Your task to perform on an android device: Open the map Image 0: 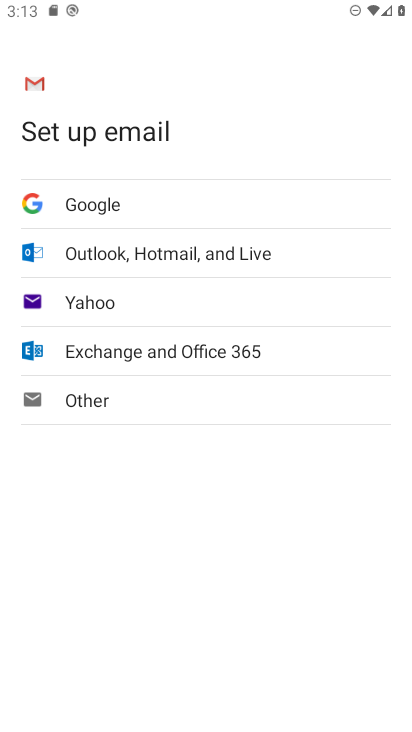
Step 0: press back button
Your task to perform on an android device: Open the map Image 1: 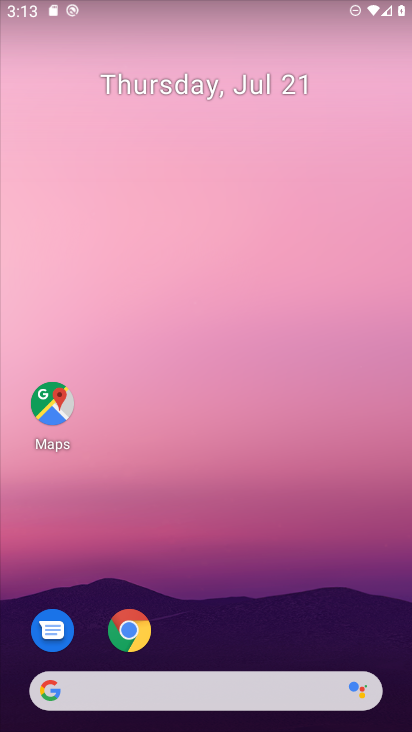
Step 1: click (36, 404)
Your task to perform on an android device: Open the map Image 2: 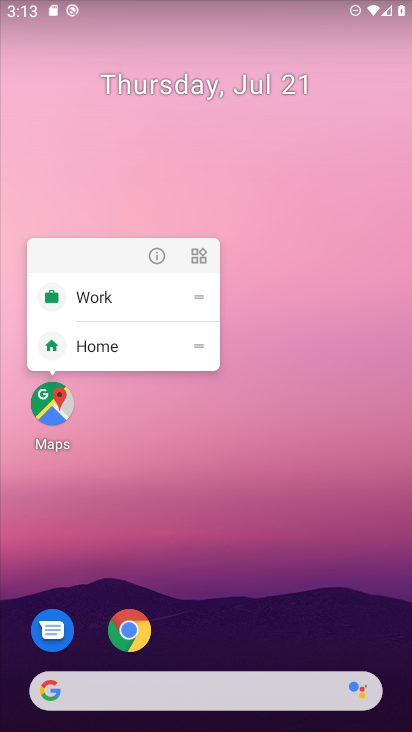
Step 2: click (62, 400)
Your task to perform on an android device: Open the map Image 3: 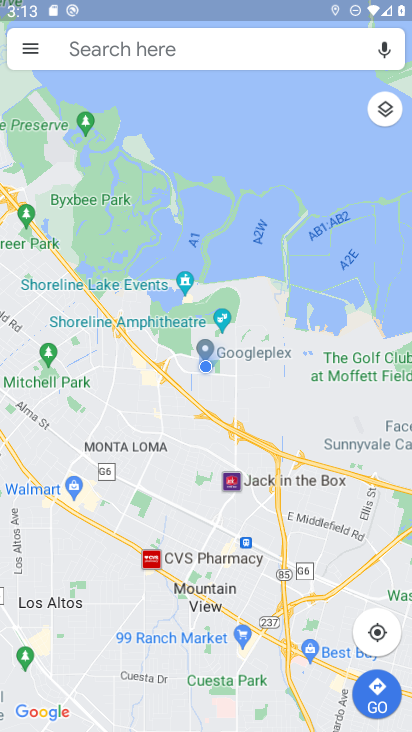
Step 3: task complete